Your task to perform on an android device: Open eBay Image 0: 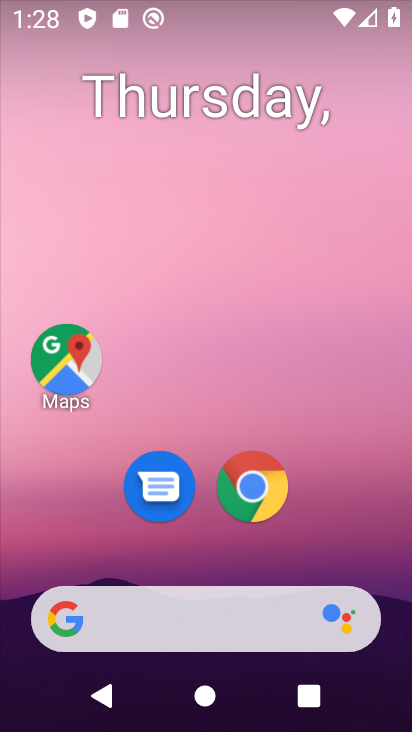
Step 0: click (253, 483)
Your task to perform on an android device: Open eBay Image 1: 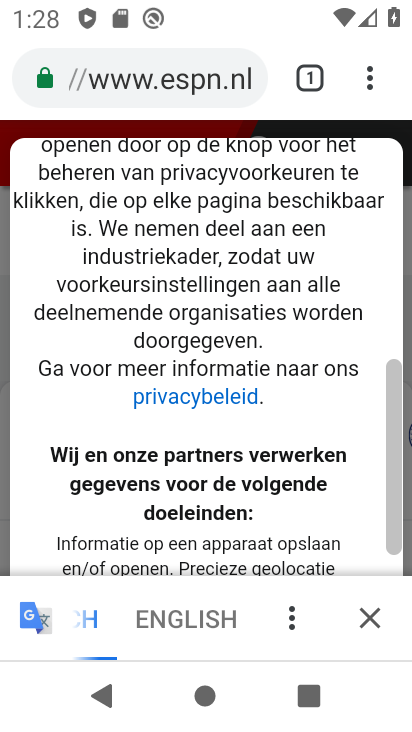
Step 1: click (300, 89)
Your task to perform on an android device: Open eBay Image 2: 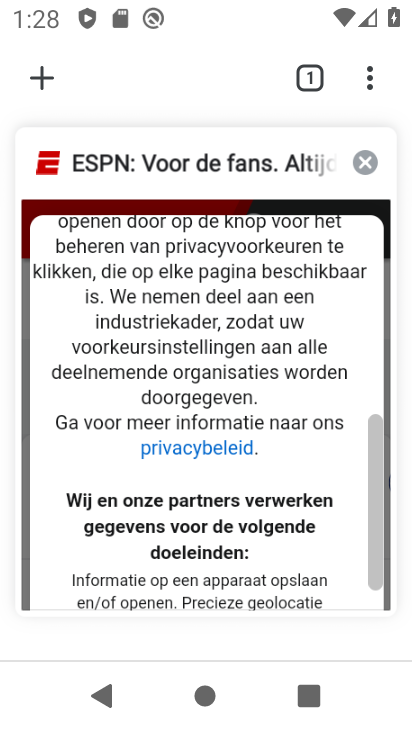
Step 2: click (51, 75)
Your task to perform on an android device: Open eBay Image 3: 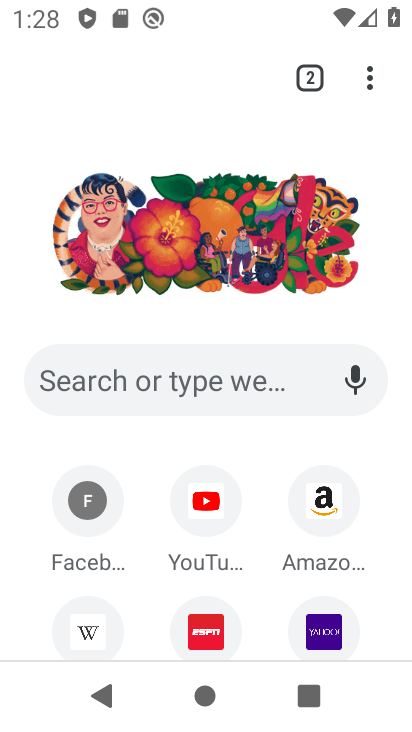
Step 3: click (227, 393)
Your task to perform on an android device: Open eBay Image 4: 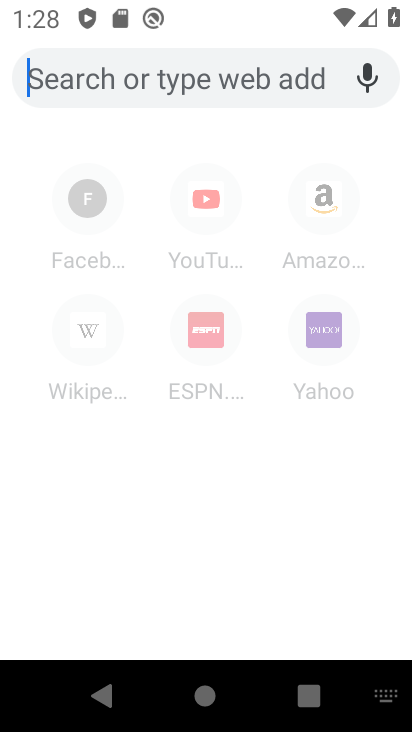
Step 4: type "ebay"
Your task to perform on an android device: Open eBay Image 5: 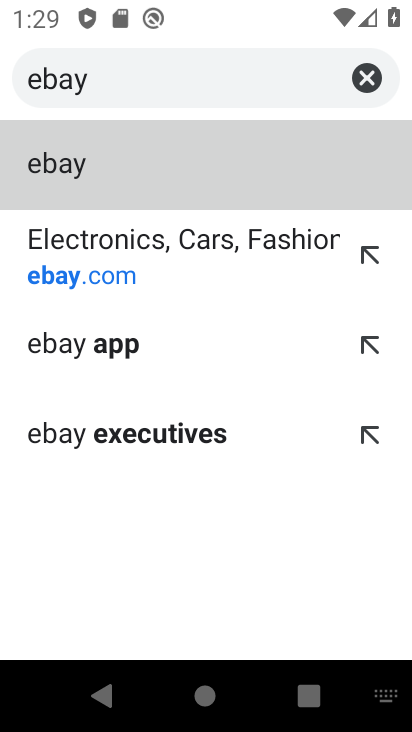
Step 5: click (121, 282)
Your task to perform on an android device: Open eBay Image 6: 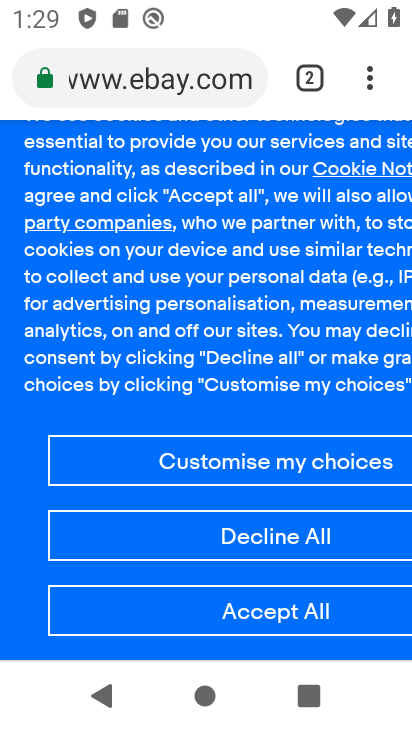
Step 6: task complete